Your task to perform on an android device: Go to wifi settings Image 0: 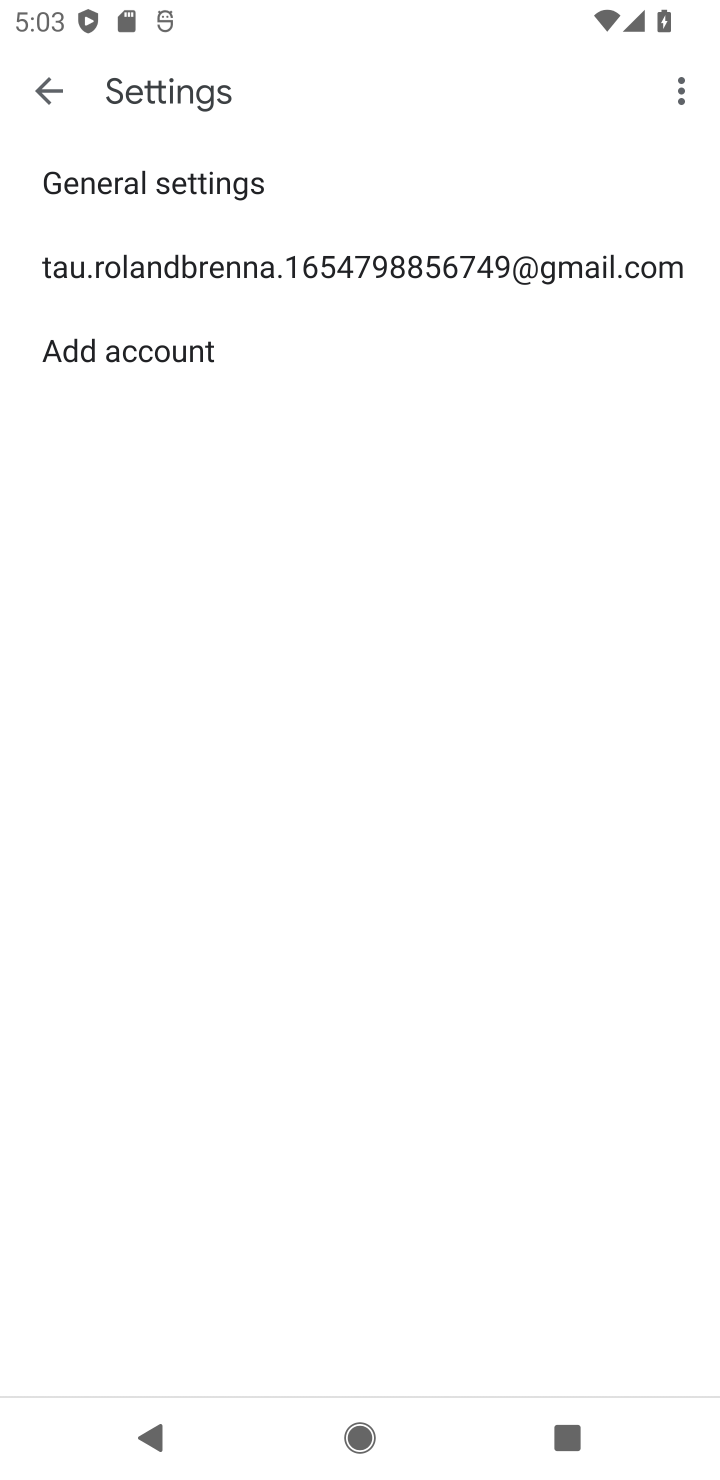
Step 0: press home button
Your task to perform on an android device: Go to wifi settings Image 1: 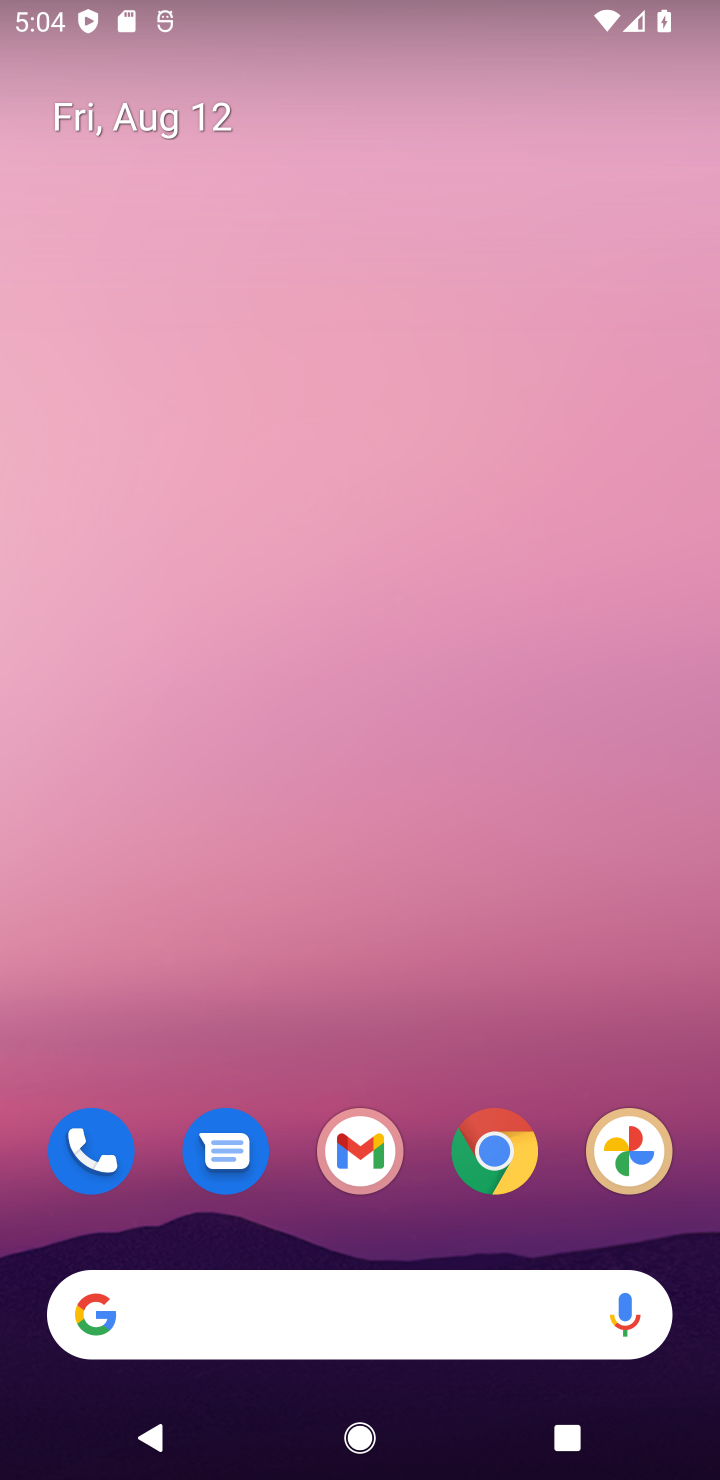
Step 1: drag from (520, 941) to (561, 77)
Your task to perform on an android device: Go to wifi settings Image 2: 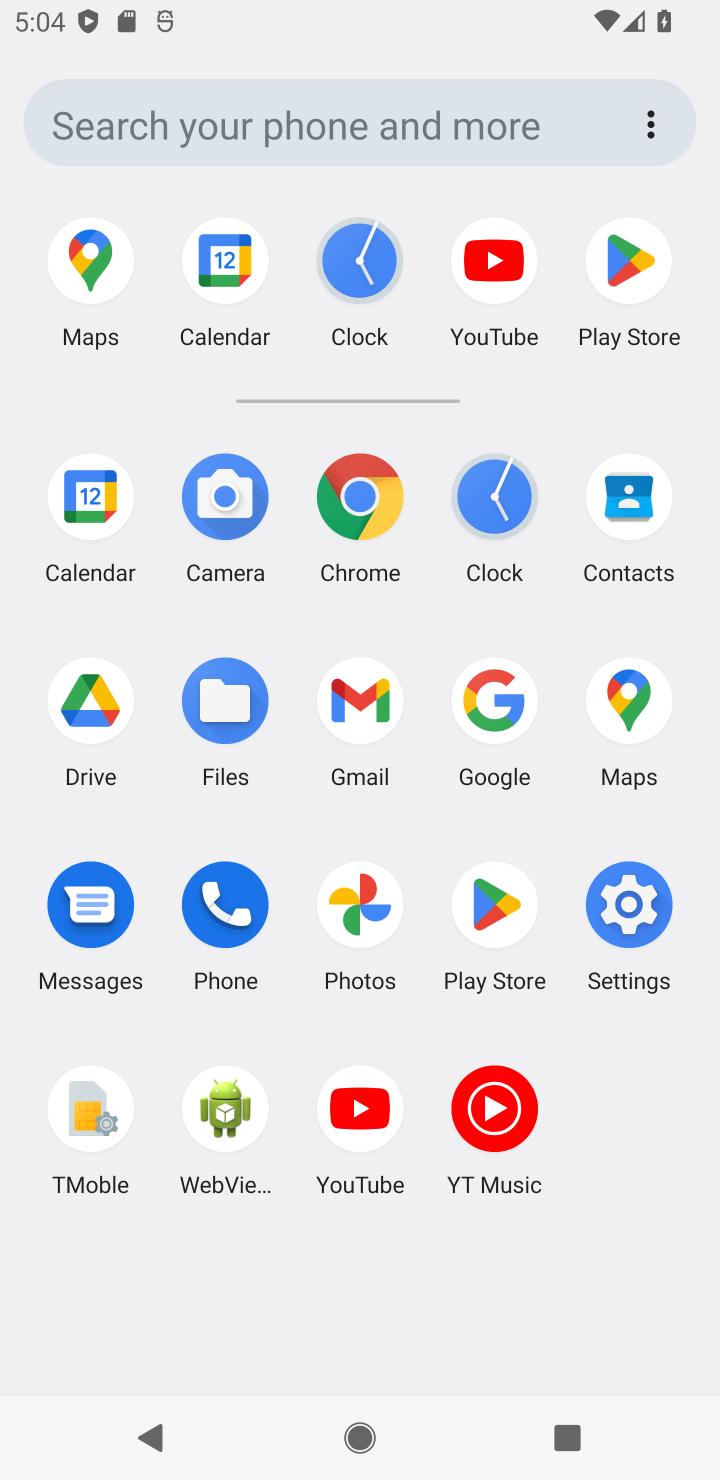
Step 2: click (625, 917)
Your task to perform on an android device: Go to wifi settings Image 3: 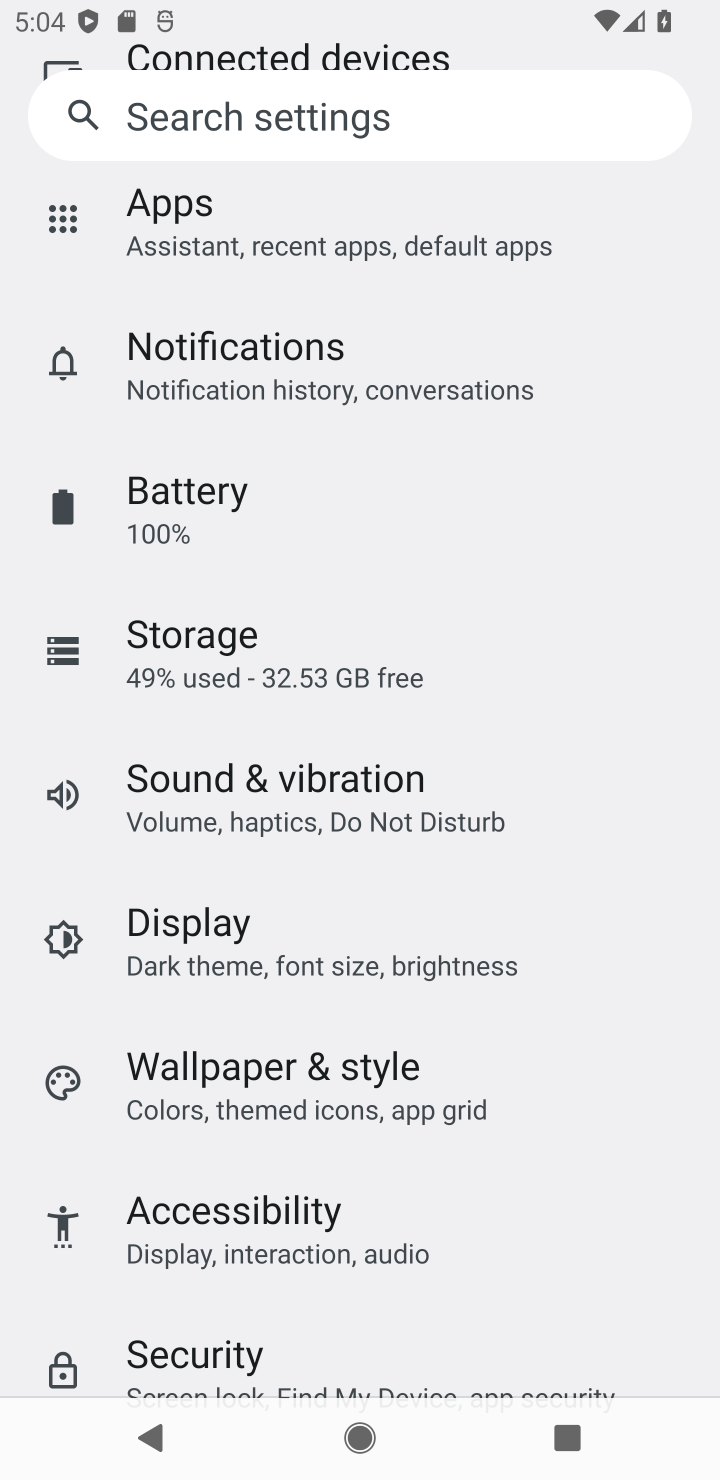
Step 3: drag from (536, 196) to (402, 887)
Your task to perform on an android device: Go to wifi settings Image 4: 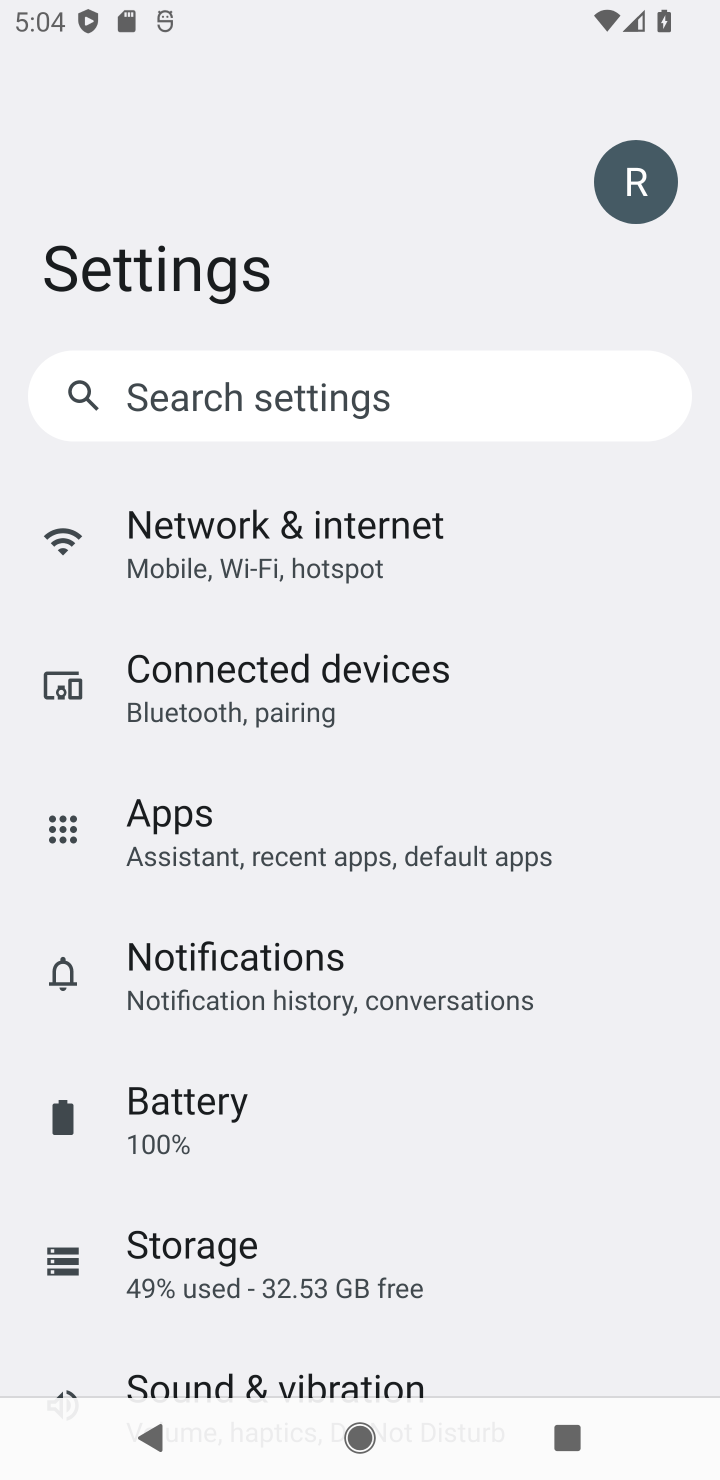
Step 4: click (353, 534)
Your task to perform on an android device: Go to wifi settings Image 5: 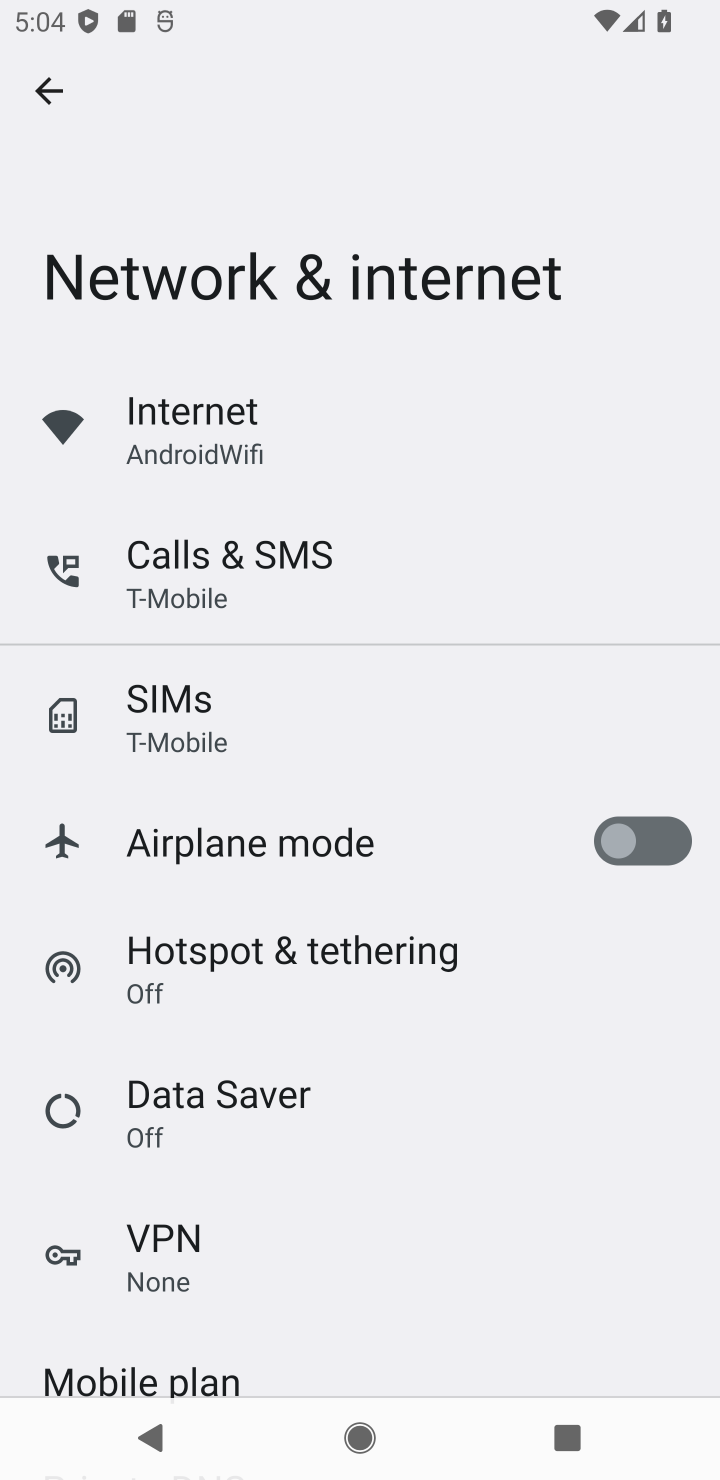
Step 5: click (229, 413)
Your task to perform on an android device: Go to wifi settings Image 6: 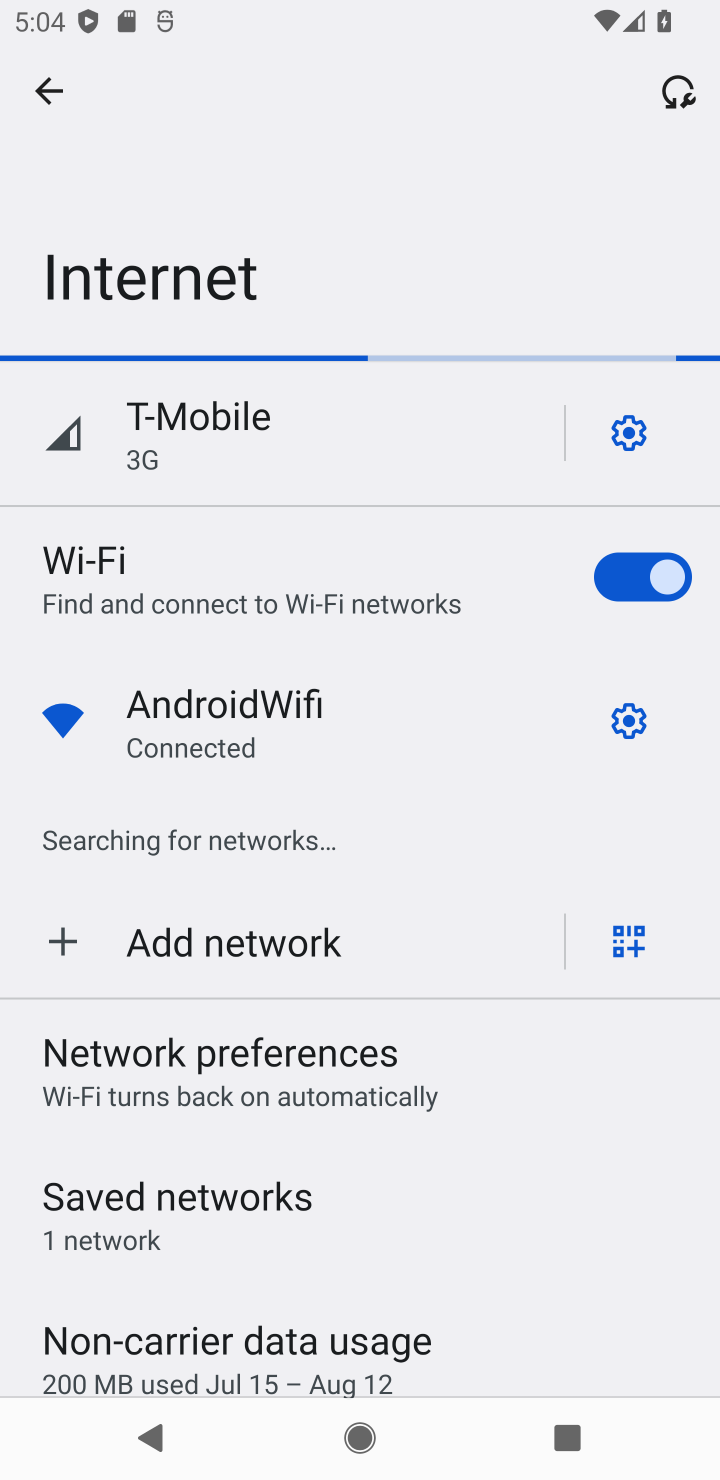
Step 6: click (620, 716)
Your task to perform on an android device: Go to wifi settings Image 7: 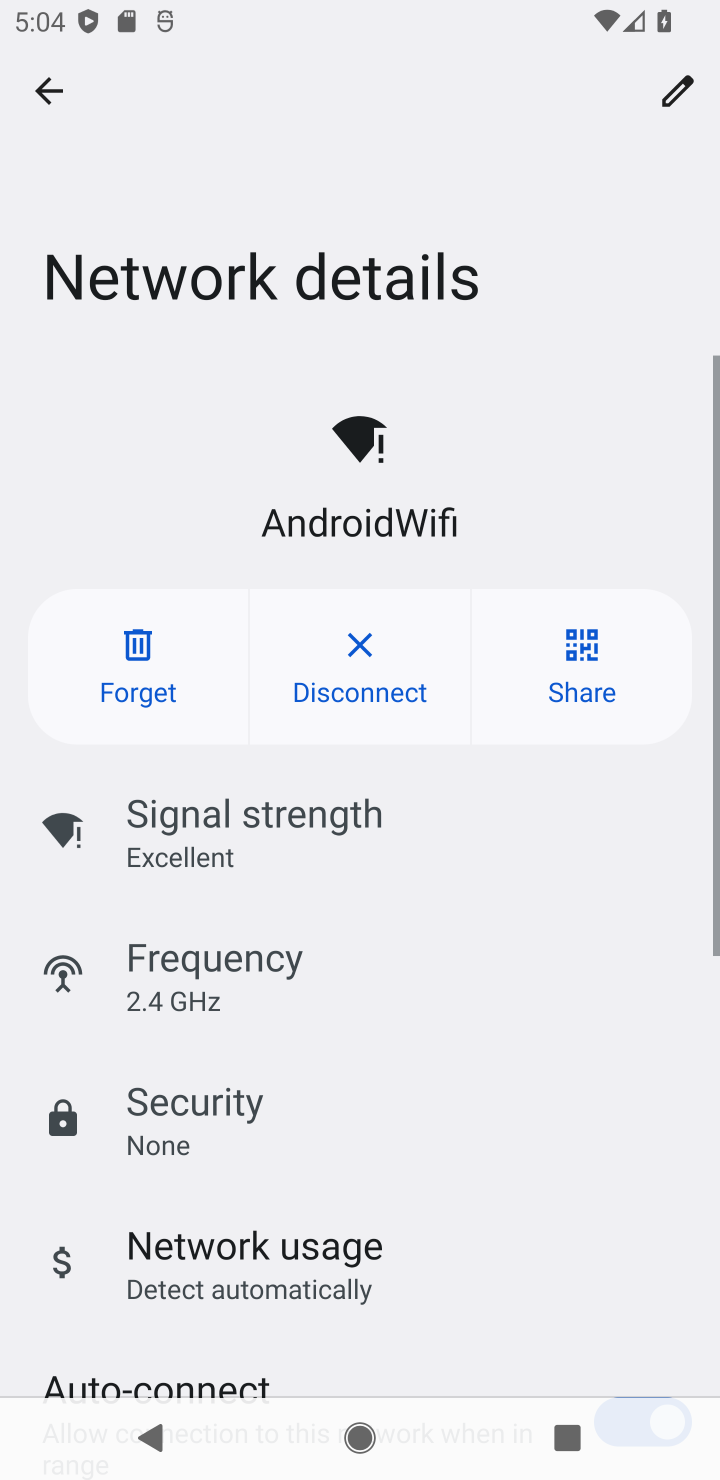
Step 7: task complete